Your task to perform on an android device: Go to internet settings Image 0: 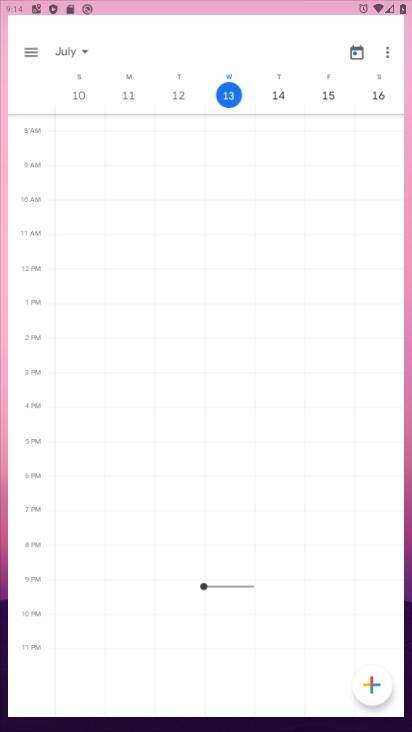
Step 0: press home button
Your task to perform on an android device: Go to internet settings Image 1: 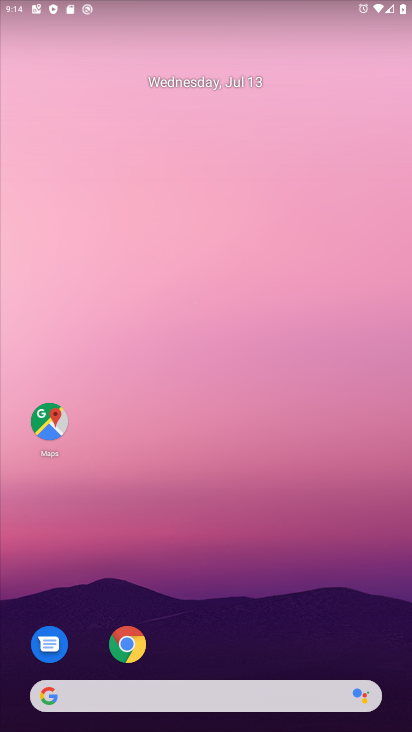
Step 1: drag from (199, 712) to (238, 103)
Your task to perform on an android device: Go to internet settings Image 2: 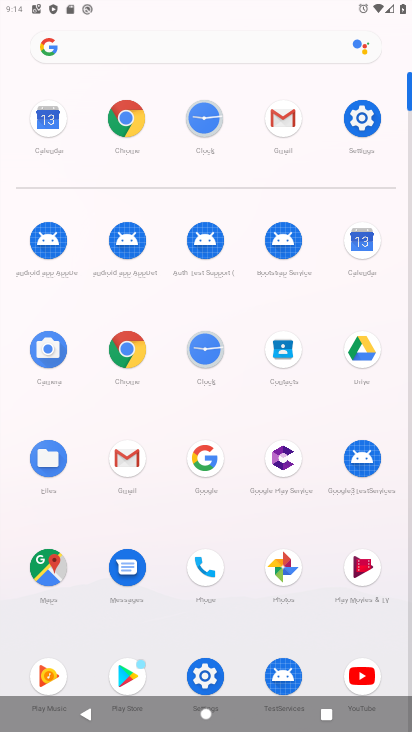
Step 2: click (359, 120)
Your task to perform on an android device: Go to internet settings Image 3: 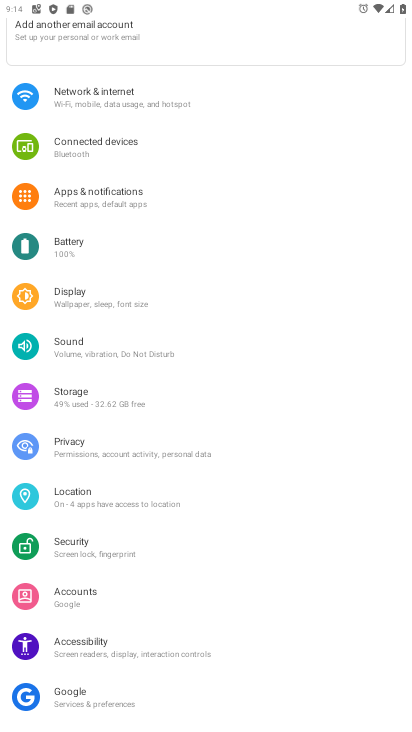
Step 3: click (88, 98)
Your task to perform on an android device: Go to internet settings Image 4: 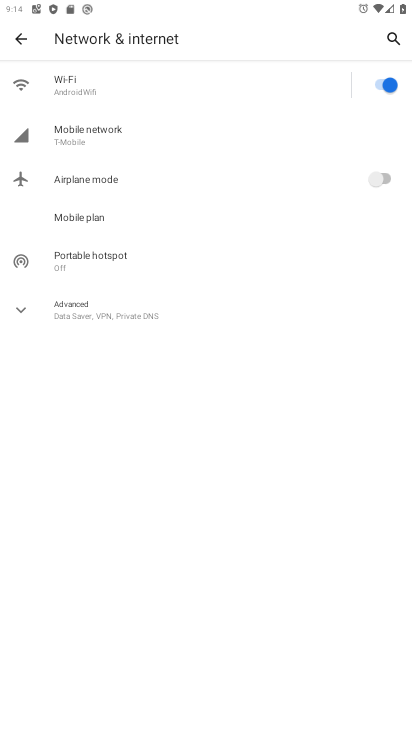
Step 4: task complete